Your task to perform on an android device: turn on airplane mode Image 0: 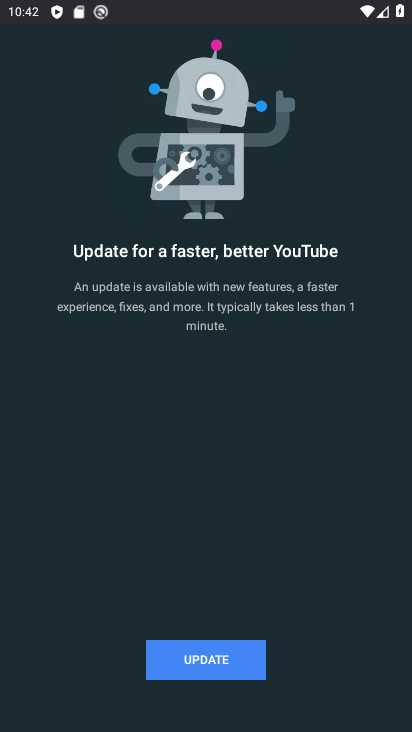
Step 0: press home button
Your task to perform on an android device: turn on airplane mode Image 1: 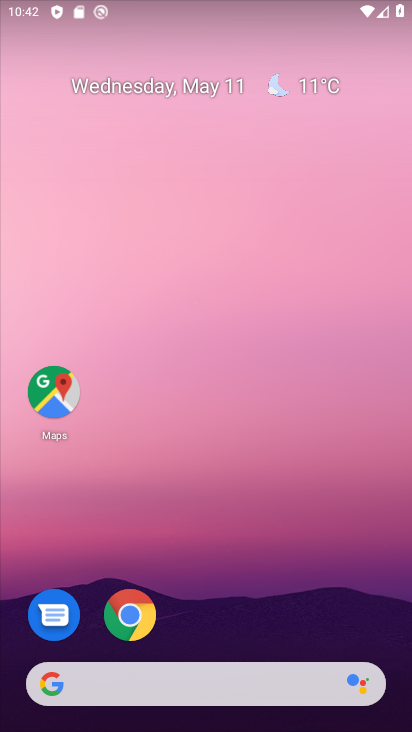
Step 1: drag from (243, 6) to (241, 493)
Your task to perform on an android device: turn on airplane mode Image 2: 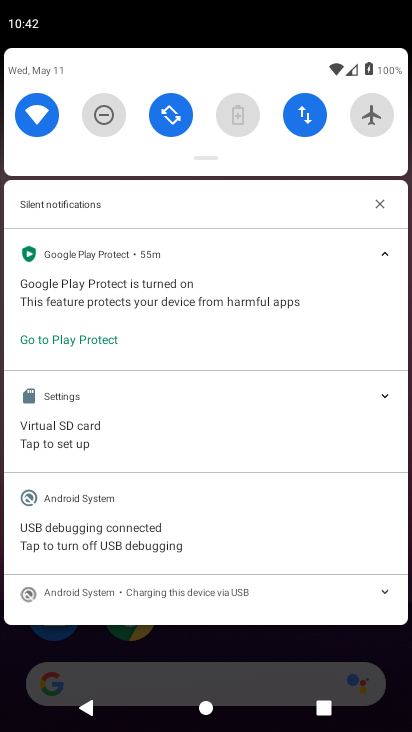
Step 2: click (378, 115)
Your task to perform on an android device: turn on airplane mode Image 3: 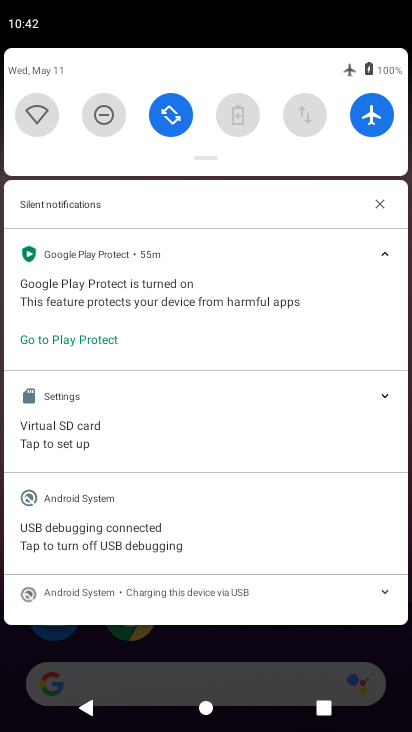
Step 3: task complete